Your task to perform on an android device: Check the weather Image 0: 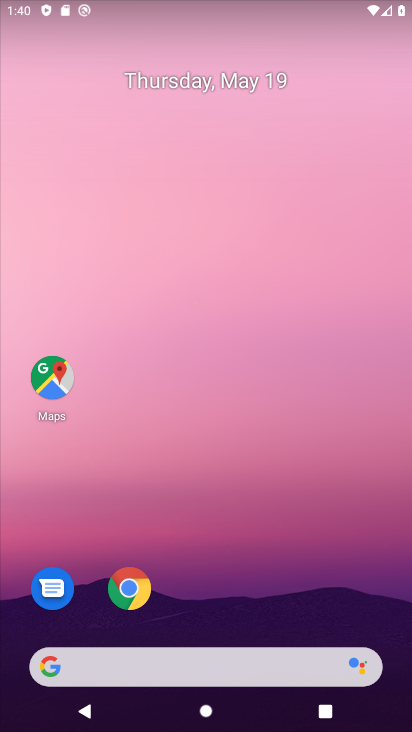
Step 0: drag from (244, 593) to (242, 96)
Your task to perform on an android device: Check the weather Image 1: 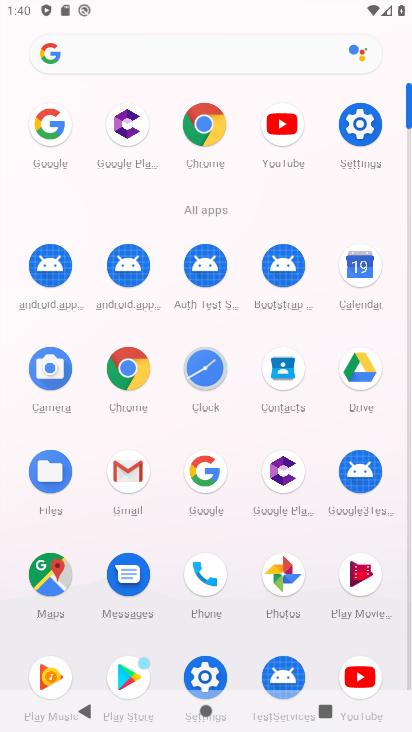
Step 1: click (206, 477)
Your task to perform on an android device: Check the weather Image 2: 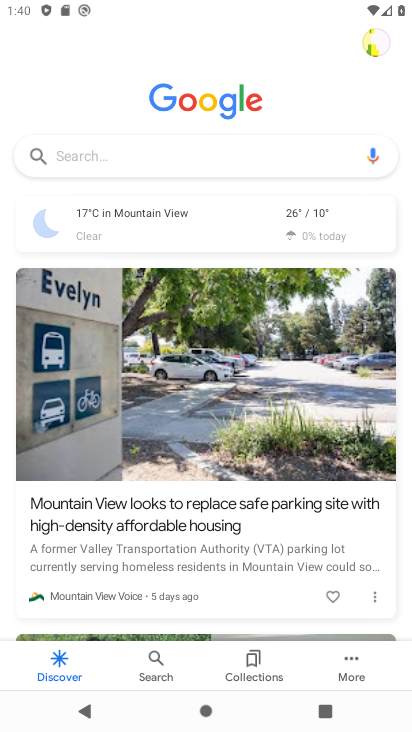
Step 2: click (172, 150)
Your task to perform on an android device: Check the weather Image 3: 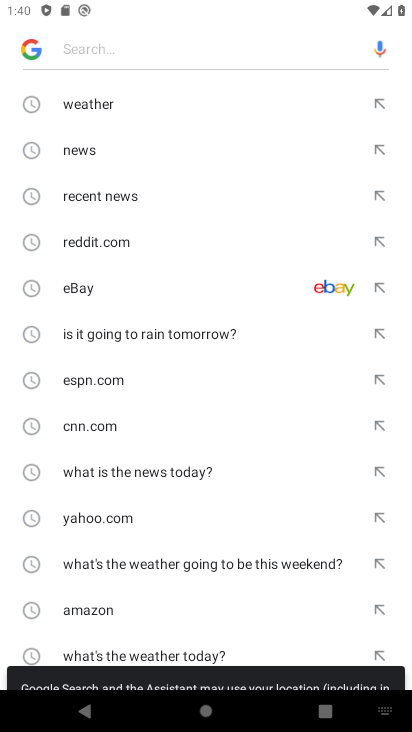
Step 3: click (115, 105)
Your task to perform on an android device: Check the weather Image 4: 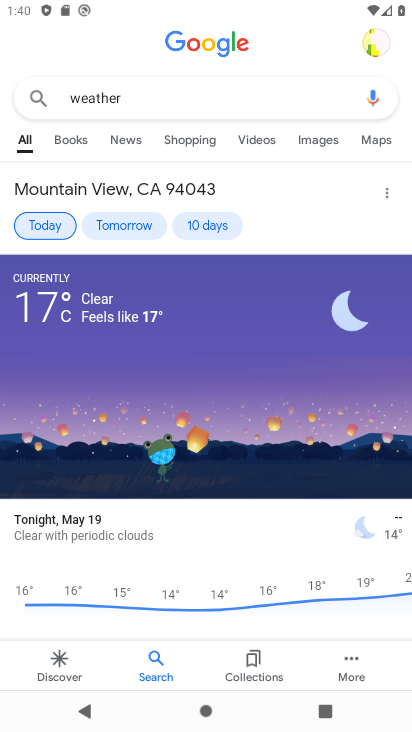
Step 4: task complete